Your task to perform on an android device: Go to Google maps Image 0: 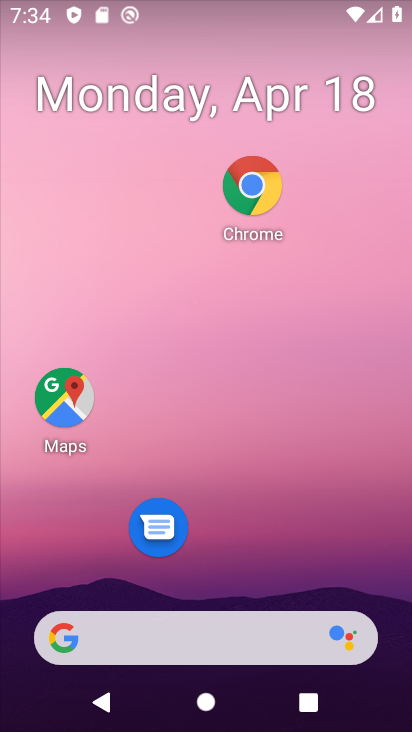
Step 0: drag from (276, 217) to (284, 134)
Your task to perform on an android device: Go to Google maps Image 1: 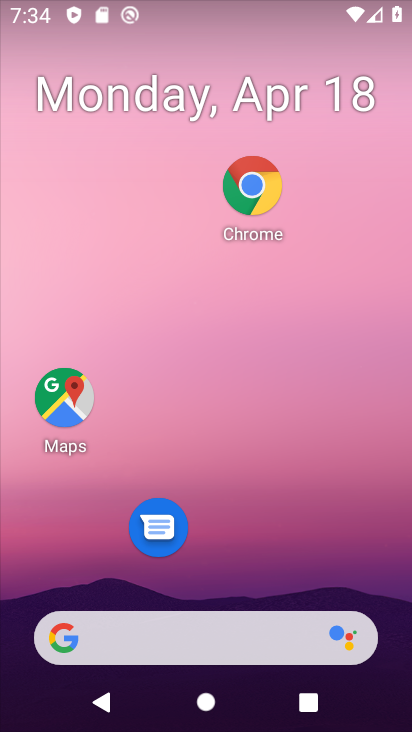
Step 1: drag from (275, 526) to (322, 89)
Your task to perform on an android device: Go to Google maps Image 2: 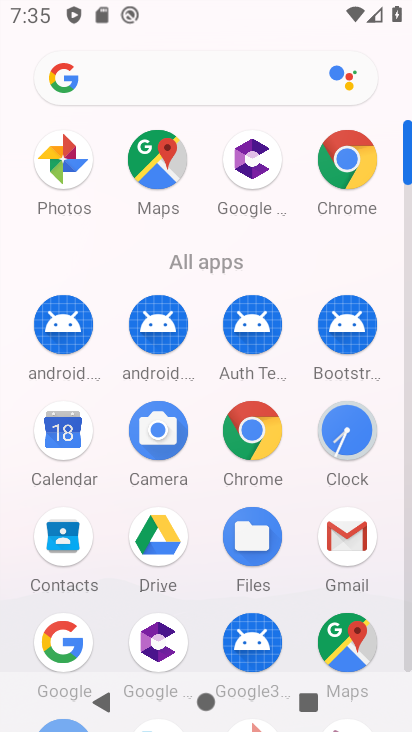
Step 2: click (342, 637)
Your task to perform on an android device: Go to Google maps Image 3: 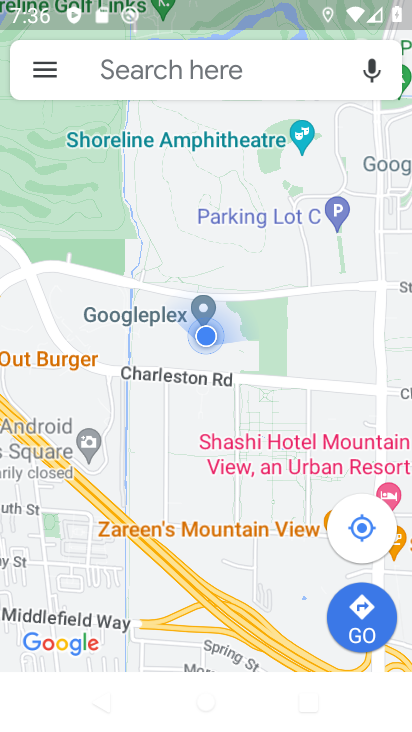
Step 3: task complete